Your task to perform on an android device: Open network settings Image 0: 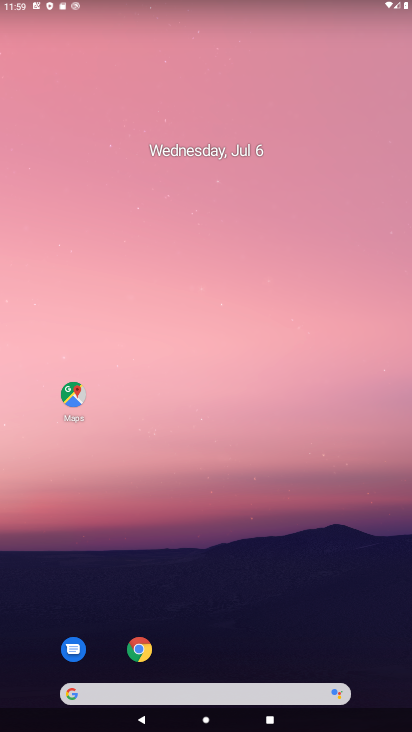
Step 0: drag from (20, 699) to (298, 10)
Your task to perform on an android device: Open network settings Image 1: 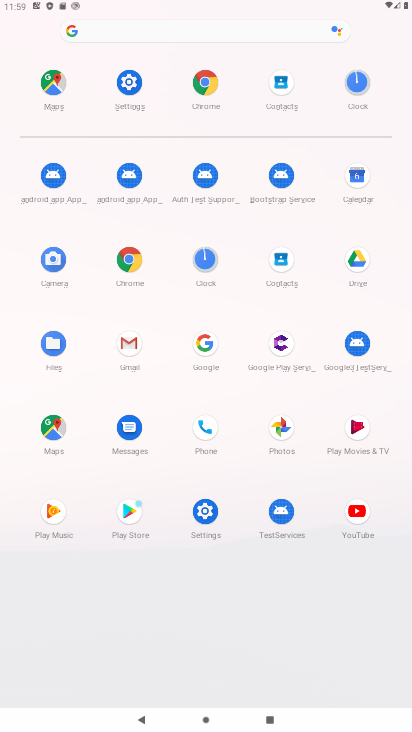
Step 1: click (208, 518)
Your task to perform on an android device: Open network settings Image 2: 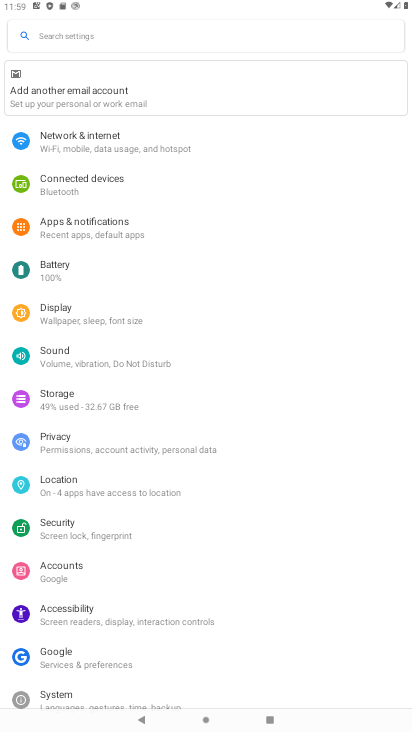
Step 2: click (94, 140)
Your task to perform on an android device: Open network settings Image 3: 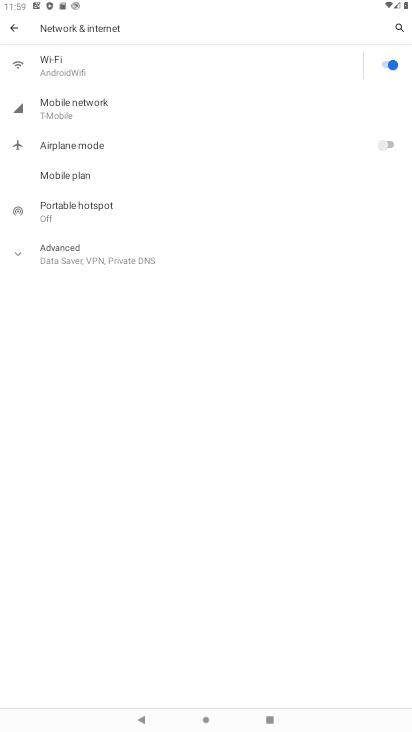
Step 3: click (74, 101)
Your task to perform on an android device: Open network settings Image 4: 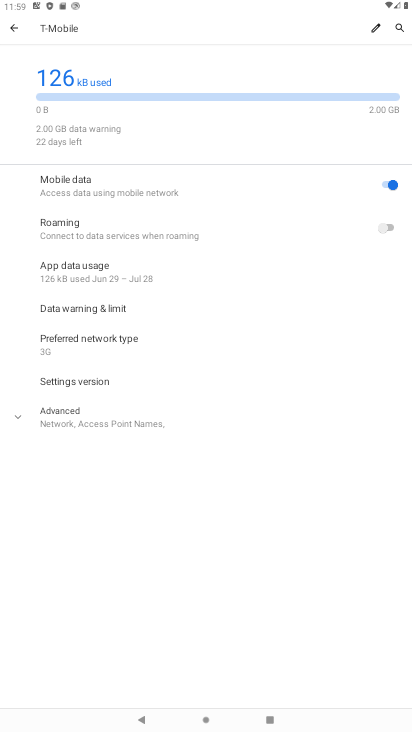
Step 4: task complete